Your task to perform on an android device: toggle location history Image 0: 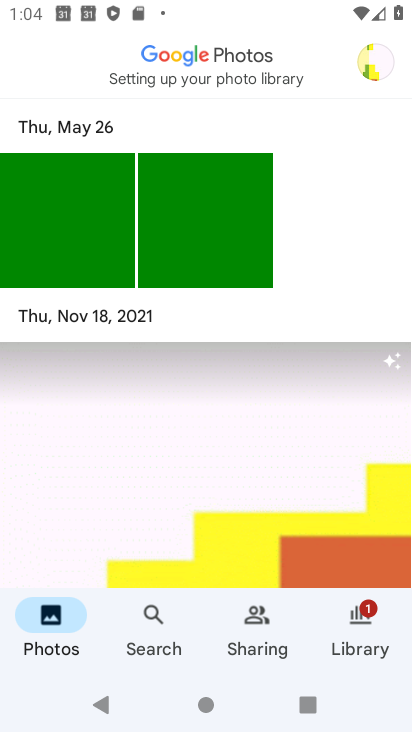
Step 0: press home button
Your task to perform on an android device: toggle location history Image 1: 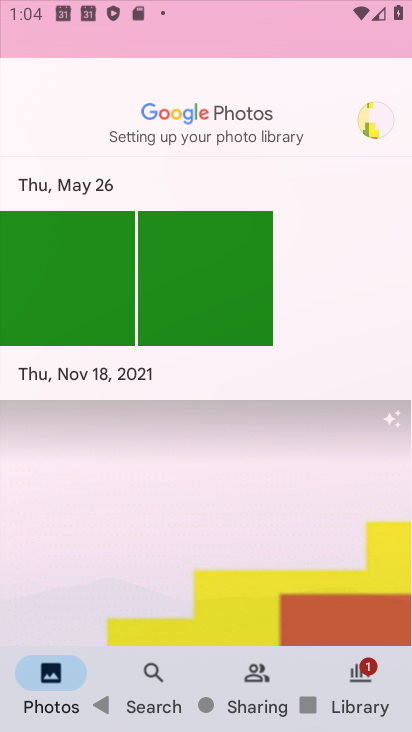
Step 1: drag from (188, 552) to (158, 2)
Your task to perform on an android device: toggle location history Image 2: 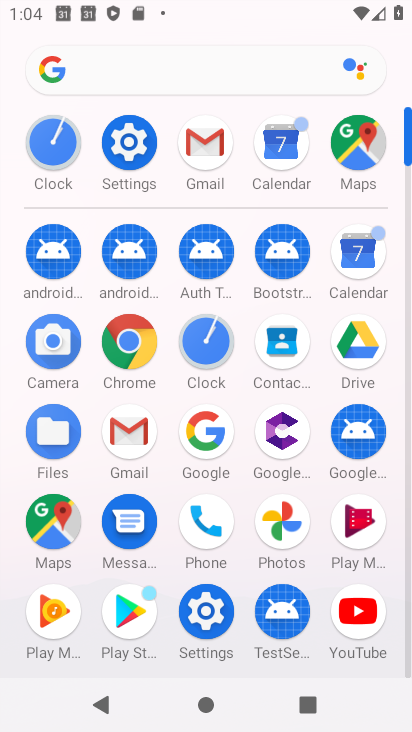
Step 2: click (118, 151)
Your task to perform on an android device: toggle location history Image 3: 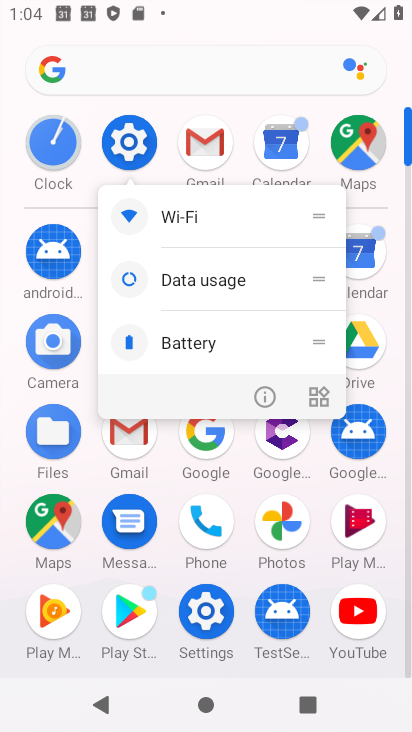
Step 3: click (268, 392)
Your task to perform on an android device: toggle location history Image 4: 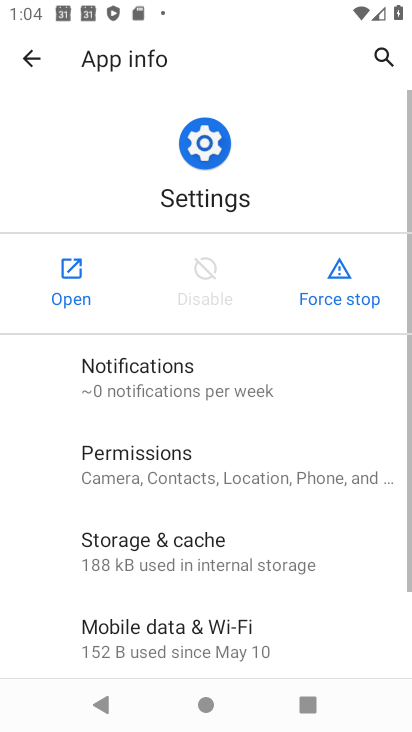
Step 4: click (64, 295)
Your task to perform on an android device: toggle location history Image 5: 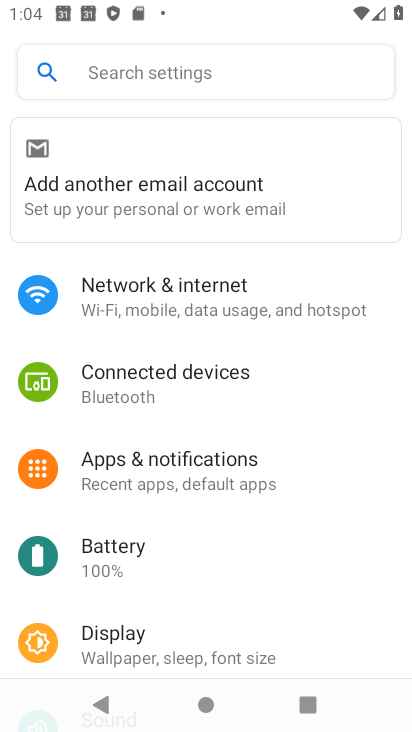
Step 5: drag from (211, 554) to (283, 4)
Your task to perform on an android device: toggle location history Image 6: 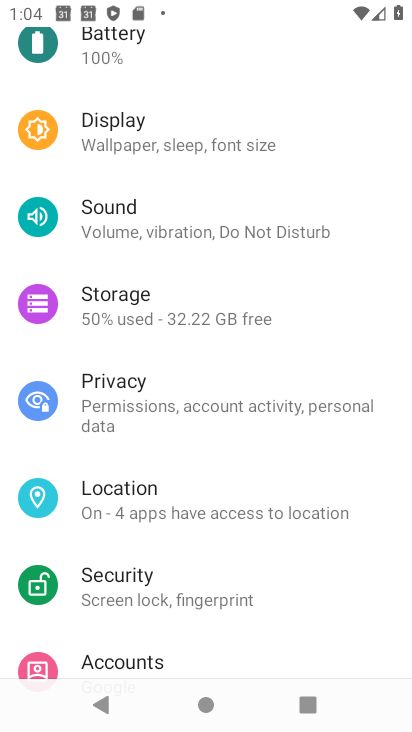
Step 6: click (153, 512)
Your task to perform on an android device: toggle location history Image 7: 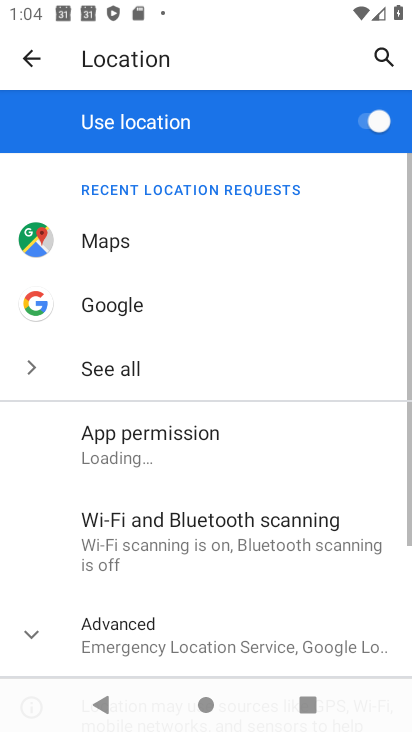
Step 7: drag from (221, 547) to (286, 179)
Your task to perform on an android device: toggle location history Image 8: 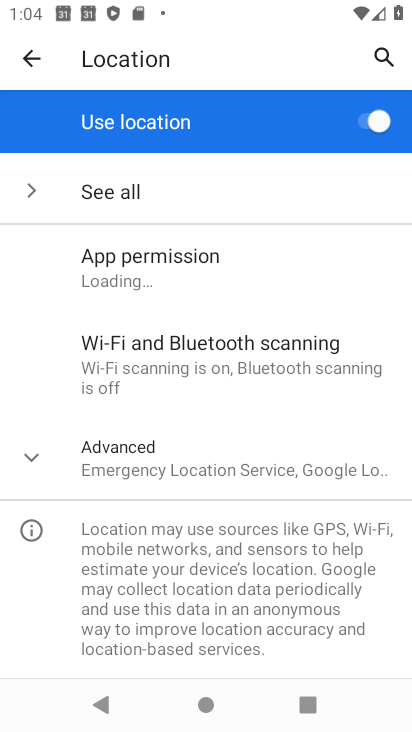
Step 8: click (164, 466)
Your task to perform on an android device: toggle location history Image 9: 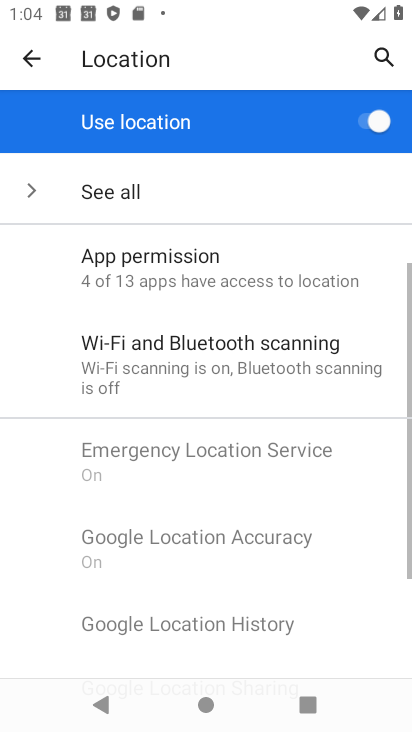
Step 9: drag from (209, 488) to (316, 94)
Your task to perform on an android device: toggle location history Image 10: 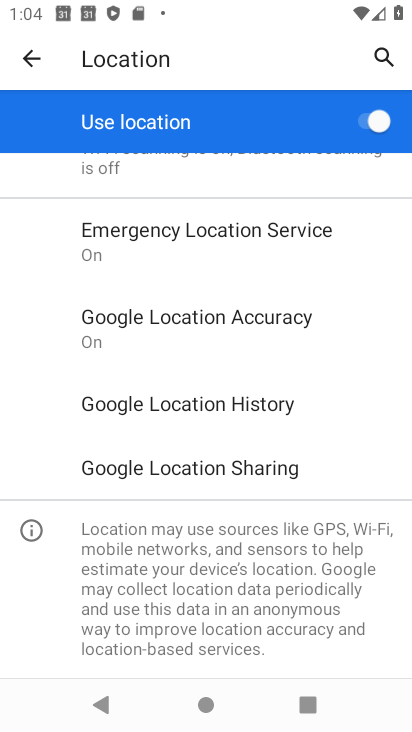
Step 10: click (224, 407)
Your task to perform on an android device: toggle location history Image 11: 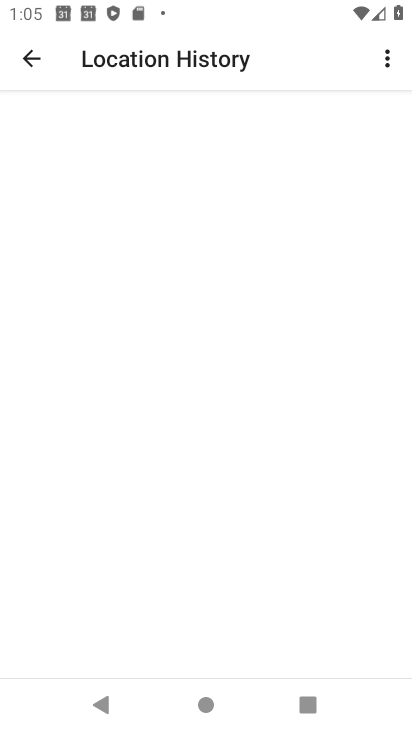
Step 11: drag from (247, 351) to (315, 122)
Your task to perform on an android device: toggle location history Image 12: 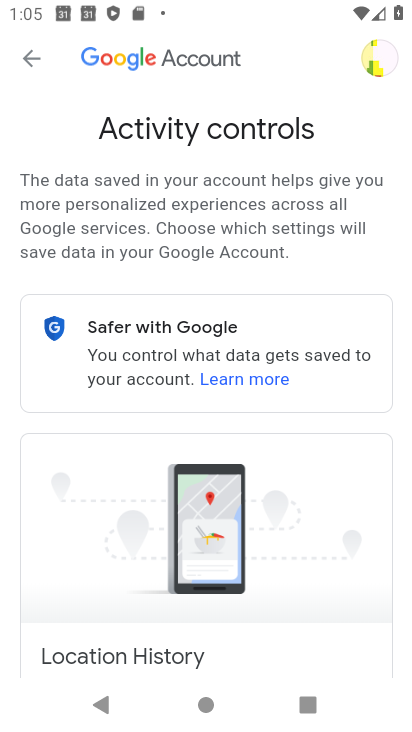
Step 12: drag from (243, 452) to (320, 83)
Your task to perform on an android device: toggle location history Image 13: 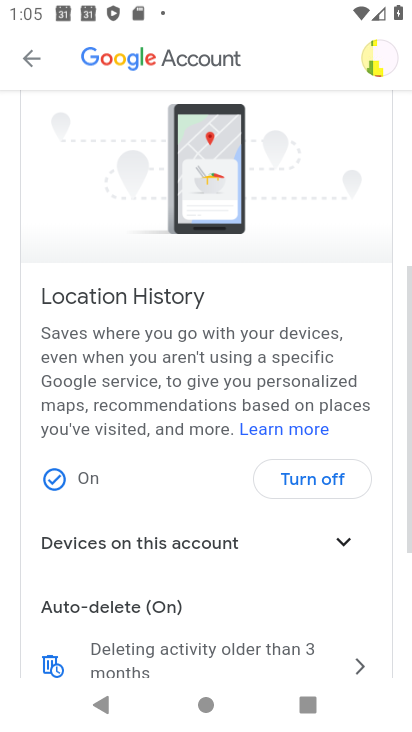
Step 13: drag from (238, 566) to (290, 244)
Your task to perform on an android device: toggle location history Image 14: 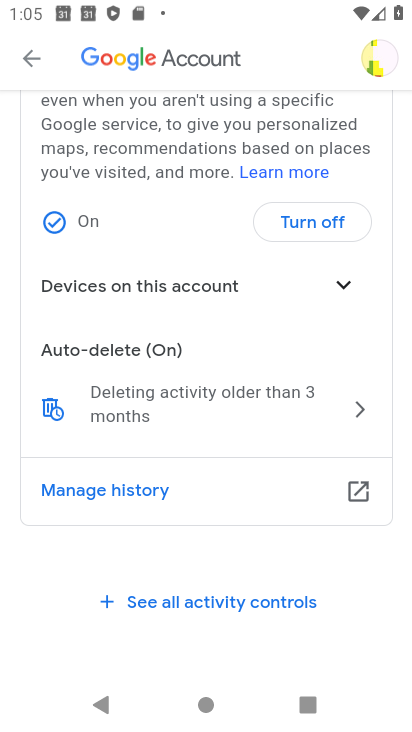
Step 14: click (316, 232)
Your task to perform on an android device: toggle location history Image 15: 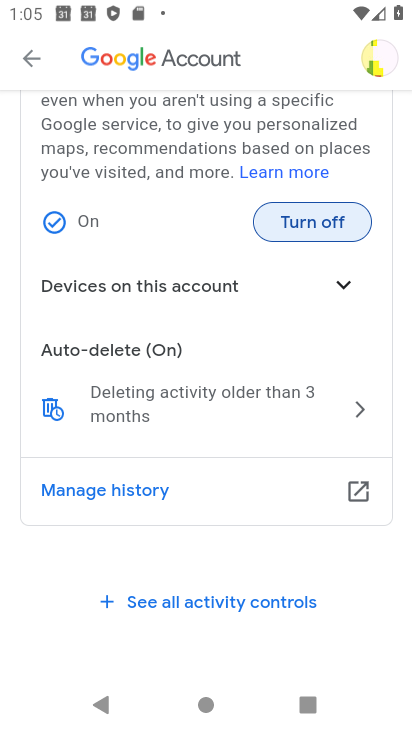
Step 15: click (288, 218)
Your task to perform on an android device: toggle location history Image 16: 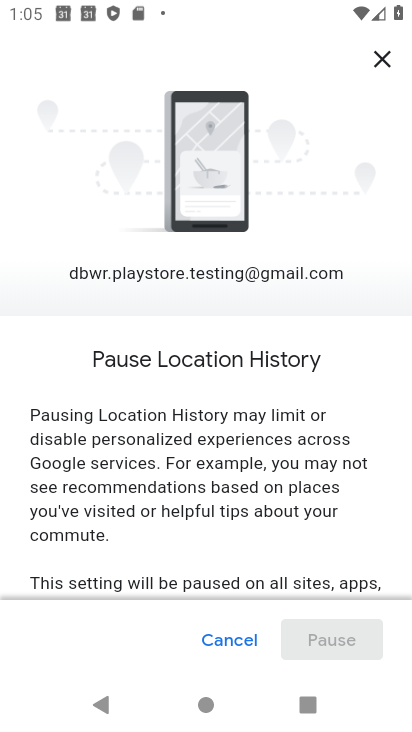
Step 16: drag from (213, 473) to (338, 75)
Your task to perform on an android device: toggle location history Image 17: 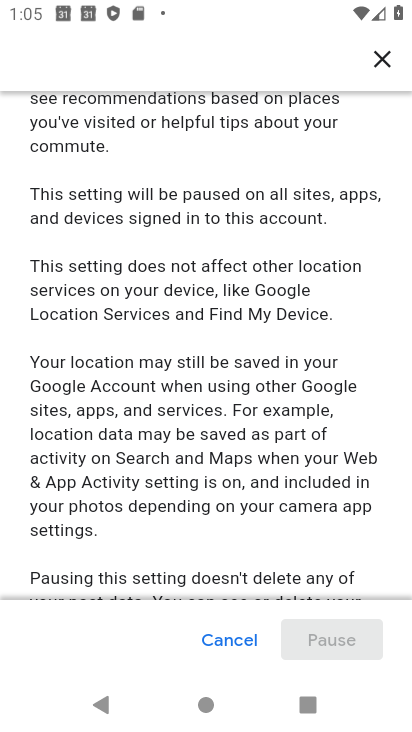
Step 17: drag from (181, 525) to (368, 20)
Your task to perform on an android device: toggle location history Image 18: 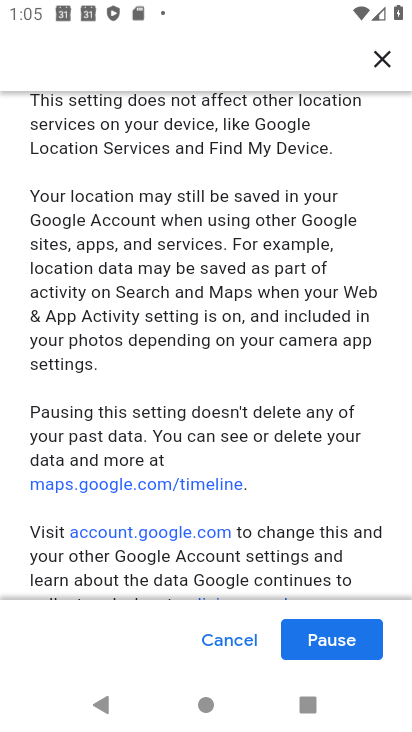
Step 18: click (326, 627)
Your task to perform on an android device: toggle location history Image 19: 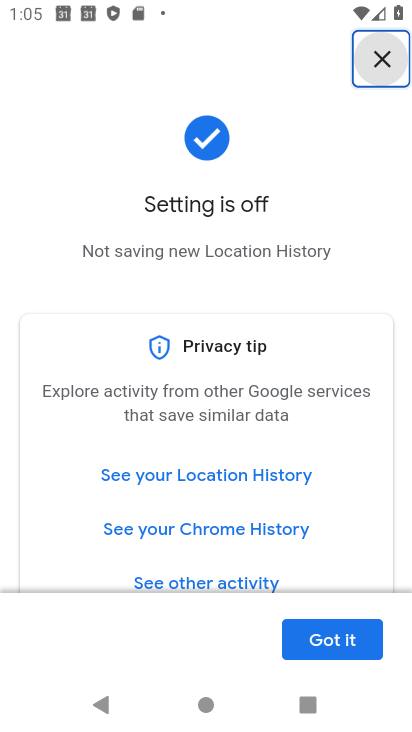
Step 19: click (341, 639)
Your task to perform on an android device: toggle location history Image 20: 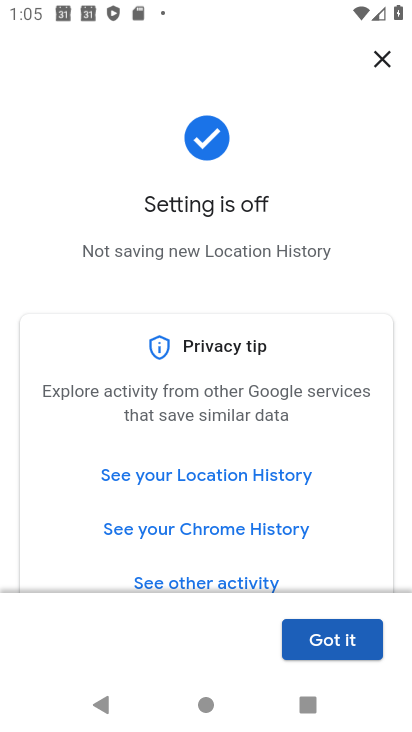
Step 20: task complete